Your task to perform on an android device: How much does the Vizio TV cost? Image 0: 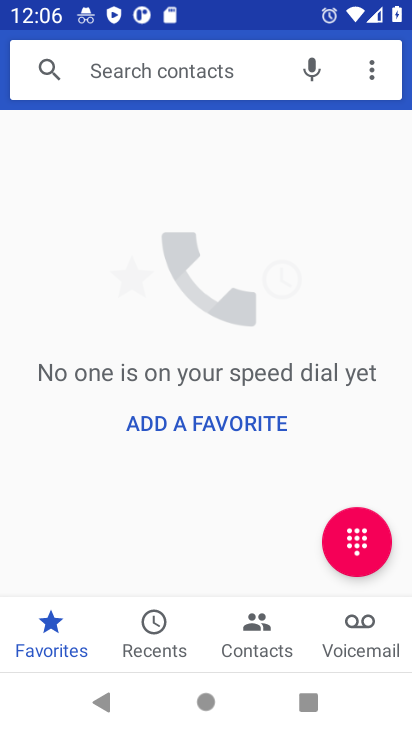
Step 0: press home button
Your task to perform on an android device: How much does the Vizio TV cost? Image 1: 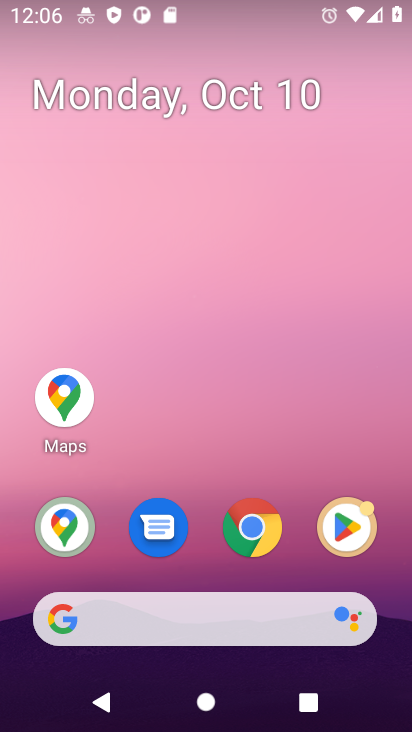
Step 1: click (260, 537)
Your task to perform on an android device: How much does the Vizio TV cost? Image 2: 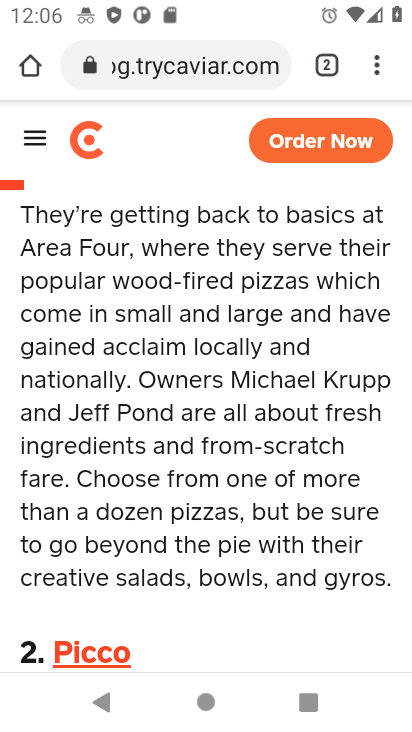
Step 2: click (171, 75)
Your task to perform on an android device: How much does the Vizio TV cost? Image 3: 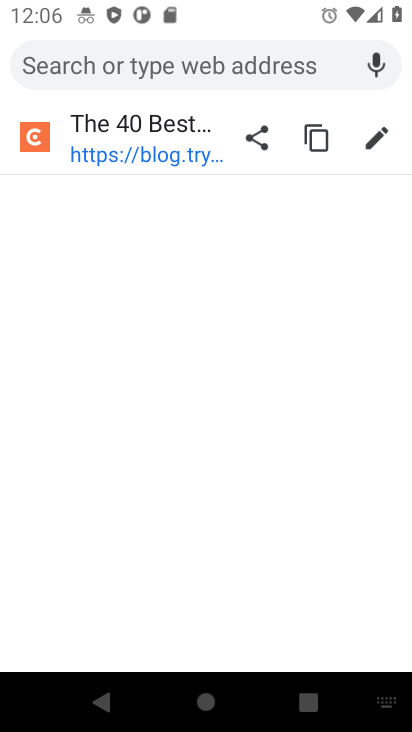
Step 3: type "How much does the Vizio TV cost?"
Your task to perform on an android device: How much does the Vizio TV cost? Image 4: 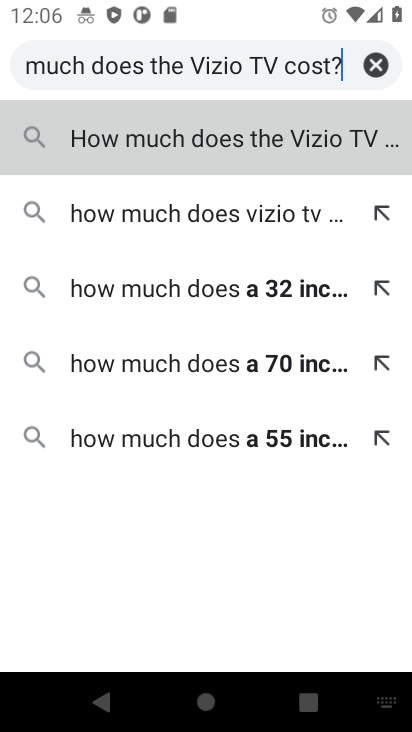
Step 4: click (192, 145)
Your task to perform on an android device: How much does the Vizio TV cost? Image 5: 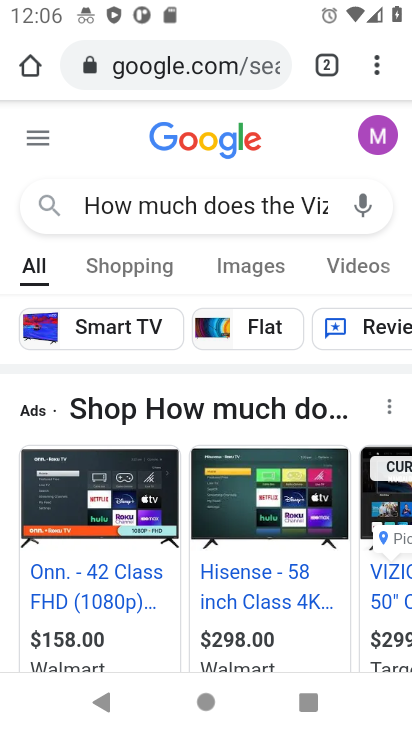
Step 5: task complete